Your task to perform on an android device: turn pop-ups on in chrome Image 0: 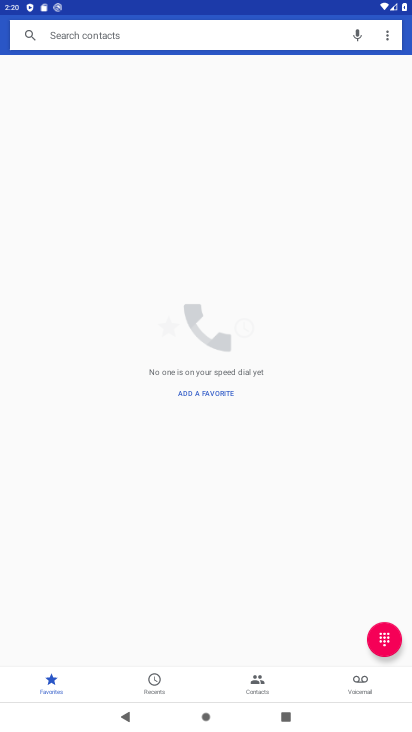
Step 0: press home button
Your task to perform on an android device: turn pop-ups on in chrome Image 1: 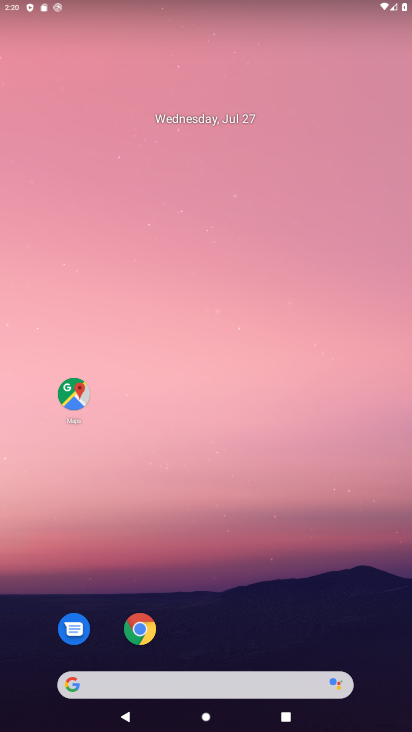
Step 1: click (138, 612)
Your task to perform on an android device: turn pop-ups on in chrome Image 2: 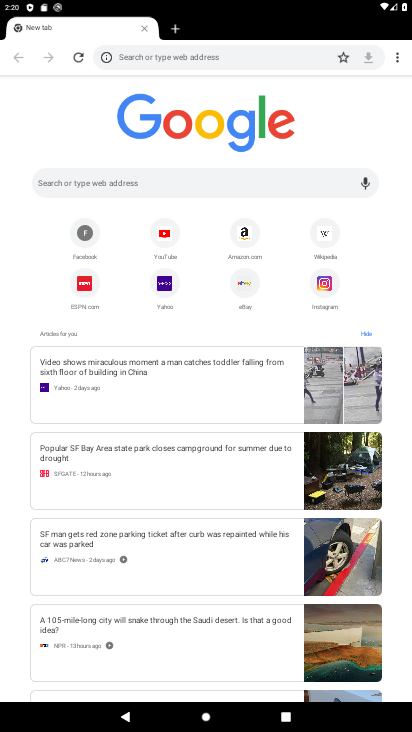
Step 2: click (403, 56)
Your task to perform on an android device: turn pop-ups on in chrome Image 3: 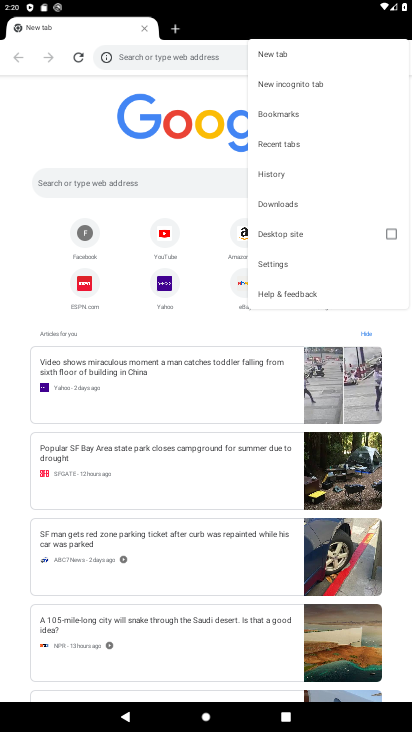
Step 3: click (297, 271)
Your task to perform on an android device: turn pop-ups on in chrome Image 4: 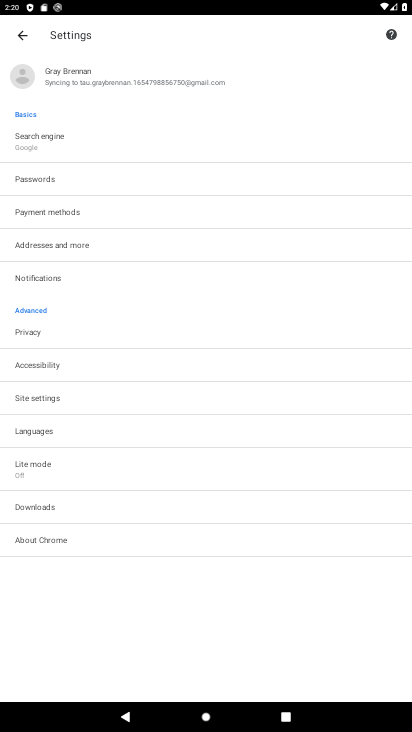
Step 4: click (77, 400)
Your task to perform on an android device: turn pop-ups on in chrome Image 5: 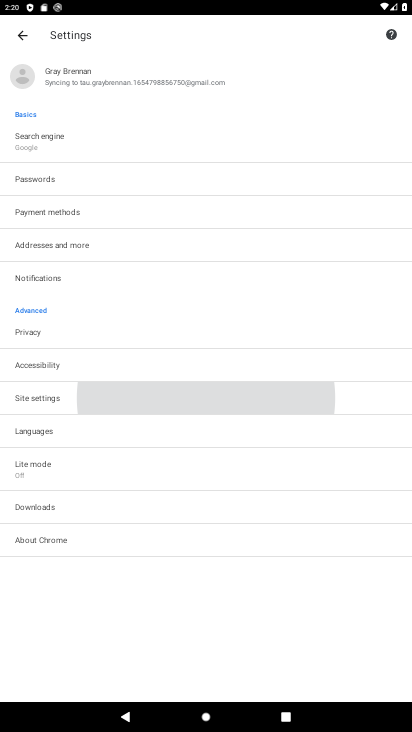
Step 5: click (77, 400)
Your task to perform on an android device: turn pop-ups on in chrome Image 6: 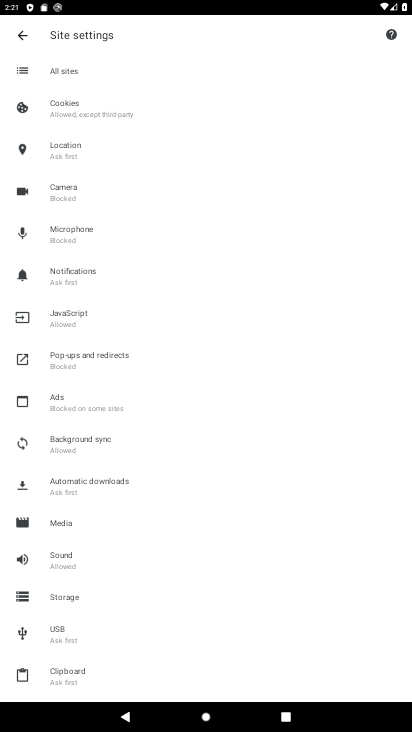
Step 6: click (100, 360)
Your task to perform on an android device: turn pop-ups on in chrome Image 7: 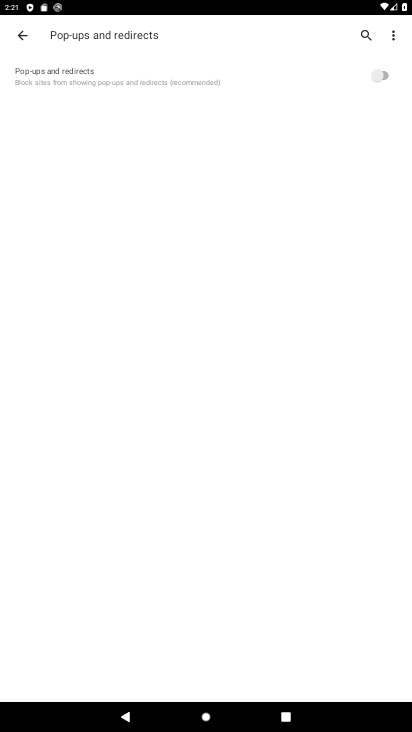
Step 7: click (100, 360)
Your task to perform on an android device: turn pop-ups on in chrome Image 8: 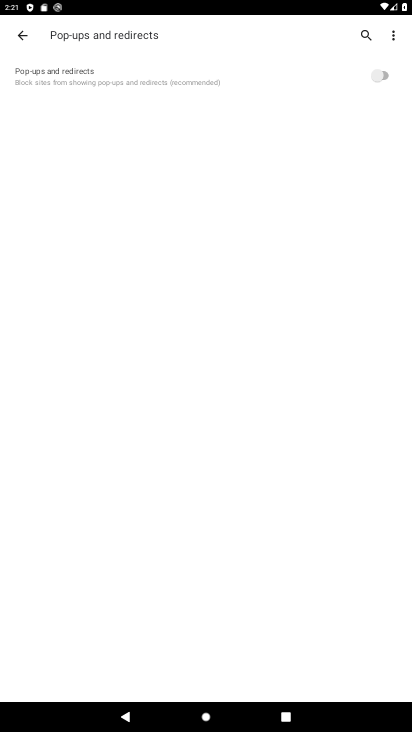
Step 8: click (379, 78)
Your task to perform on an android device: turn pop-ups on in chrome Image 9: 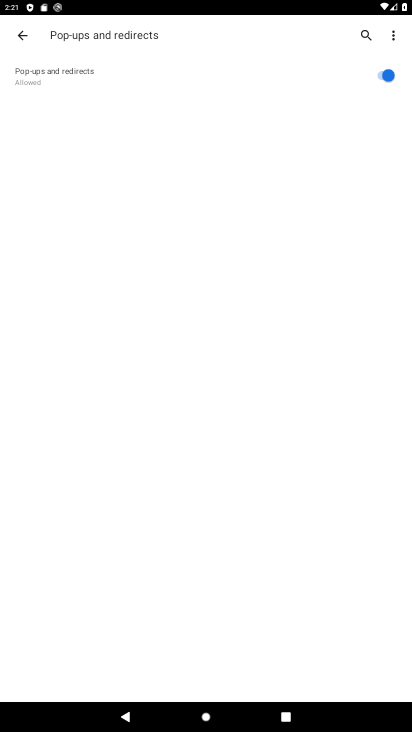
Step 9: task complete